Your task to perform on an android device: delete browsing data in the chrome app Image 0: 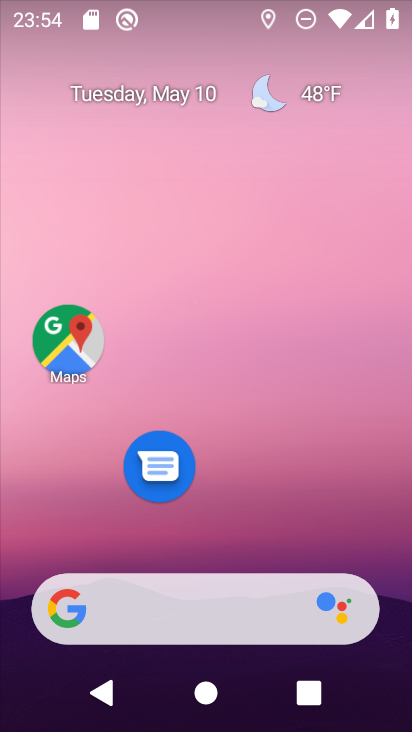
Step 0: drag from (253, 523) to (248, 27)
Your task to perform on an android device: delete browsing data in the chrome app Image 1: 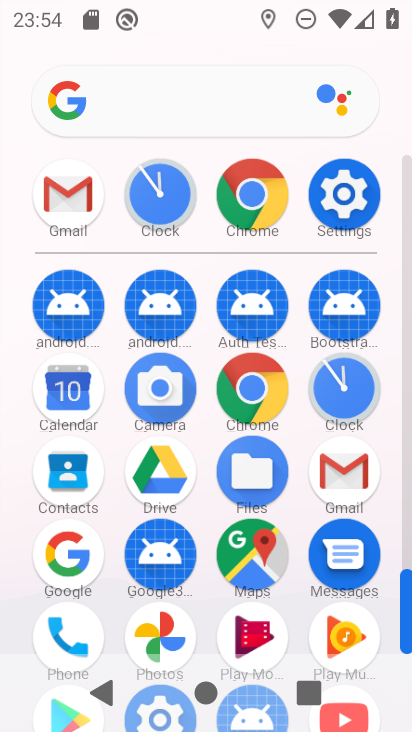
Step 1: click (244, 186)
Your task to perform on an android device: delete browsing data in the chrome app Image 2: 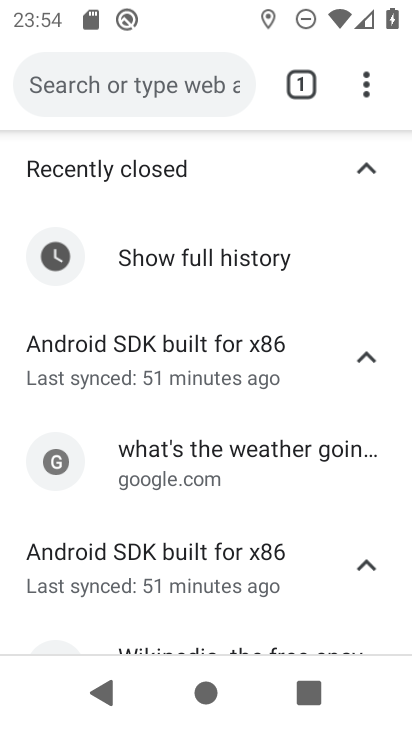
Step 2: click (360, 79)
Your task to perform on an android device: delete browsing data in the chrome app Image 3: 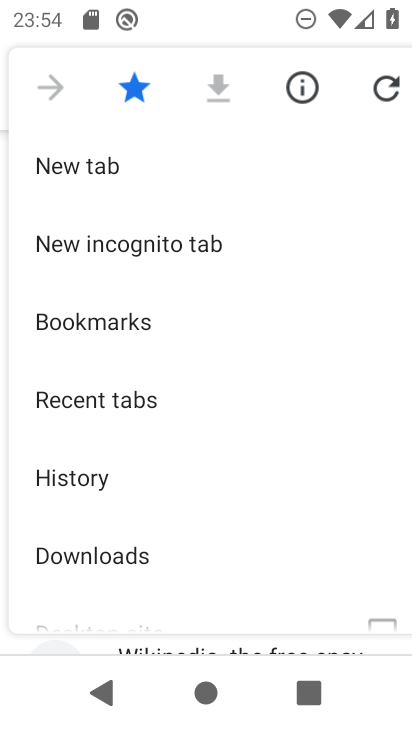
Step 3: drag from (175, 514) to (181, 294)
Your task to perform on an android device: delete browsing data in the chrome app Image 4: 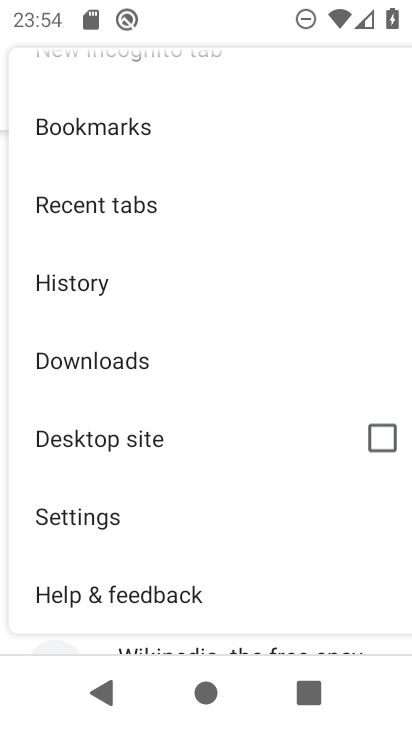
Step 4: click (52, 277)
Your task to perform on an android device: delete browsing data in the chrome app Image 5: 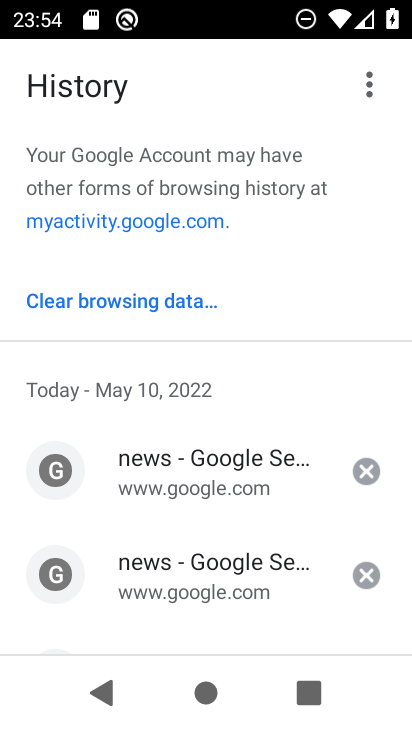
Step 5: click (109, 300)
Your task to perform on an android device: delete browsing data in the chrome app Image 6: 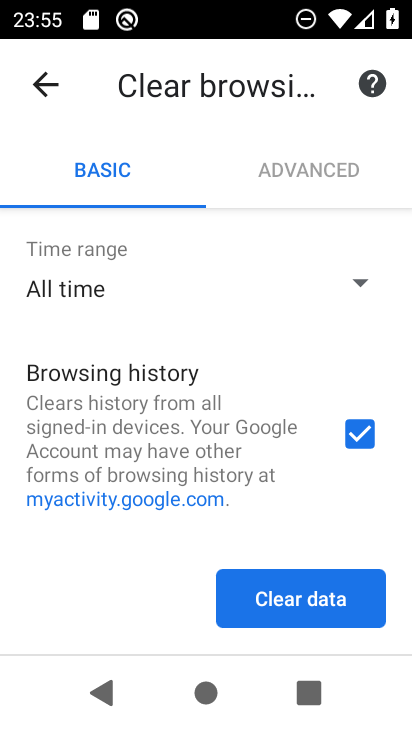
Step 6: click (274, 596)
Your task to perform on an android device: delete browsing data in the chrome app Image 7: 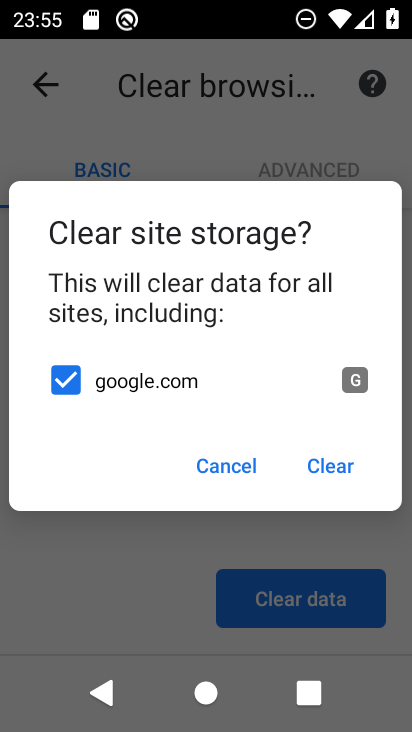
Step 7: click (342, 471)
Your task to perform on an android device: delete browsing data in the chrome app Image 8: 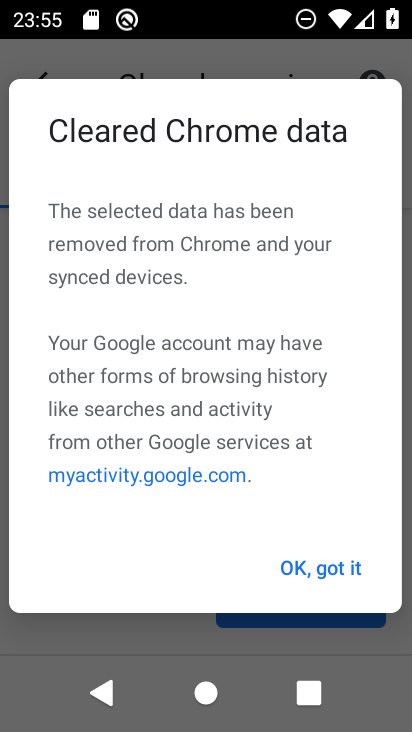
Step 8: task complete